Your task to perform on an android device: turn on priority inbox in the gmail app Image 0: 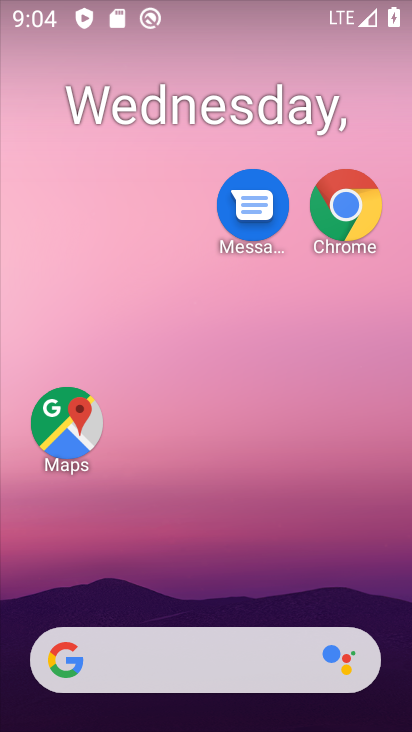
Step 0: drag from (196, 537) to (231, 171)
Your task to perform on an android device: turn on priority inbox in the gmail app Image 1: 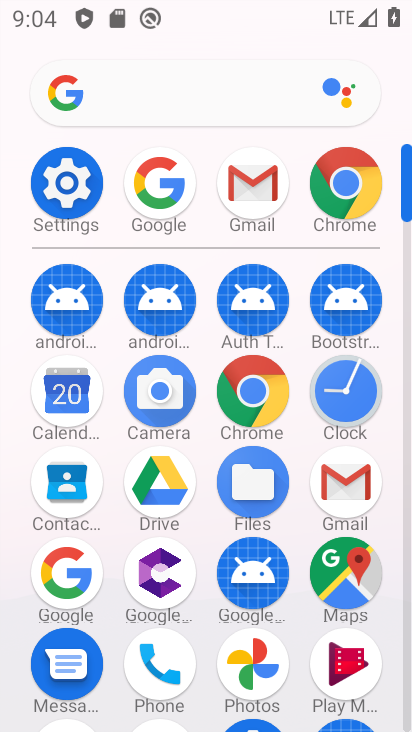
Step 1: click (333, 480)
Your task to perform on an android device: turn on priority inbox in the gmail app Image 2: 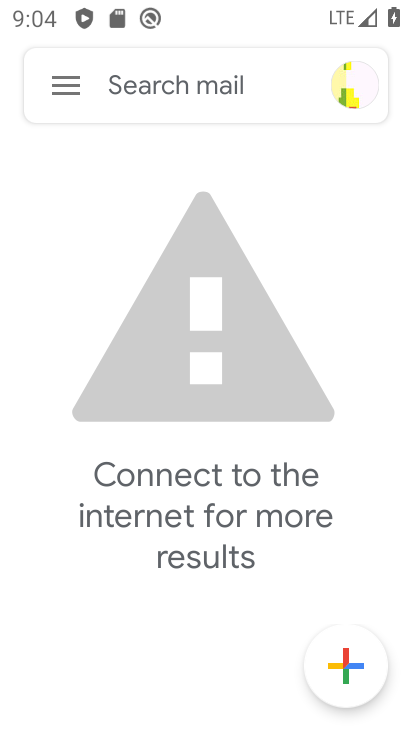
Step 2: drag from (235, 593) to (251, 261)
Your task to perform on an android device: turn on priority inbox in the gmail app Image 3: 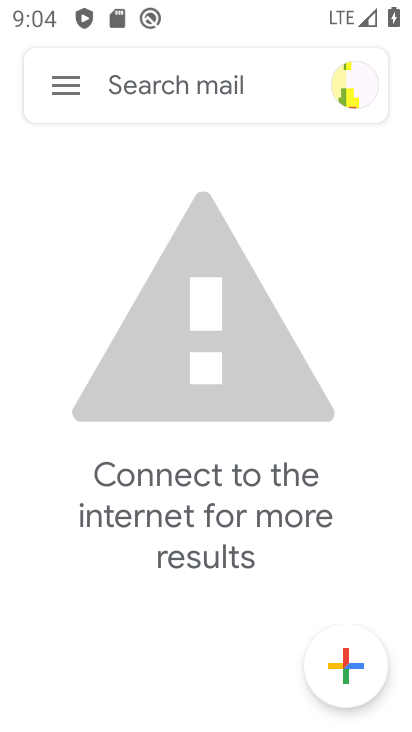
Step 3: click (52, 84)
Your task to perform on an android device: turn on priority inbox in the gmail app Image 4: 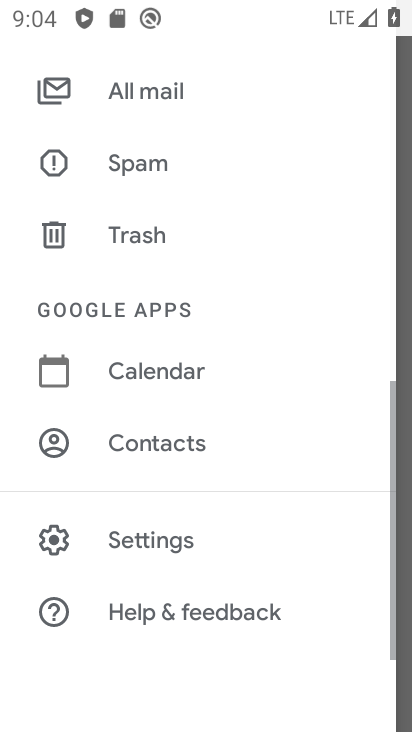
Step 4: drag from (186, 546) to (245, 170)
Your task to perform on an android device: turn on priority inbox in the gmail app Image 5: 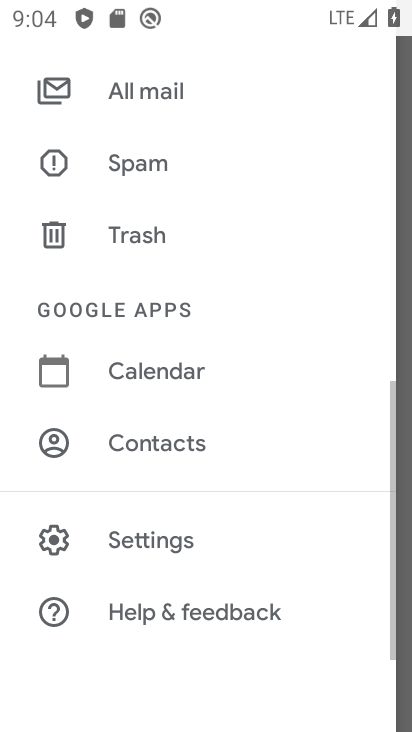
Step 5: click (247, 534)
Your task to perform on an android device: turn on priority inbox in the gmail app Image 6: 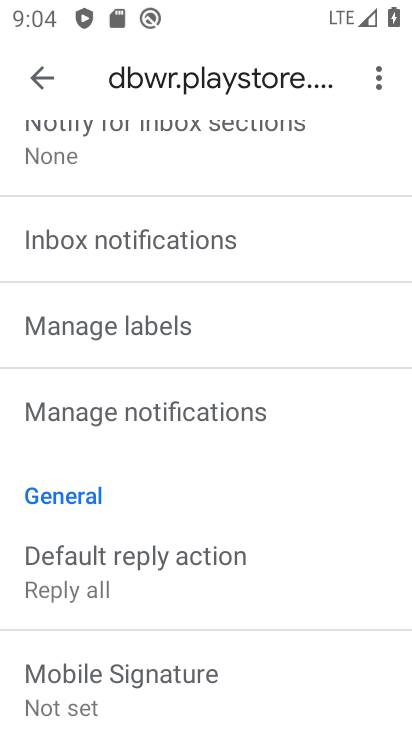
Step 6: drag from (216, 654) to (318, 362)
Your task to perform on an android device: turn on priority inbox in the gmail app Image 7: 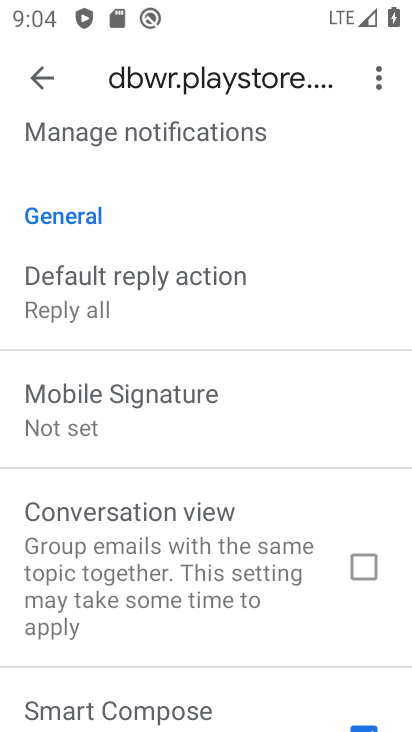
Step 7: drag from (237, 607) to (264, 364)
Your task to perform on an android device: turn on priority inbox in the gmail app Image 8: 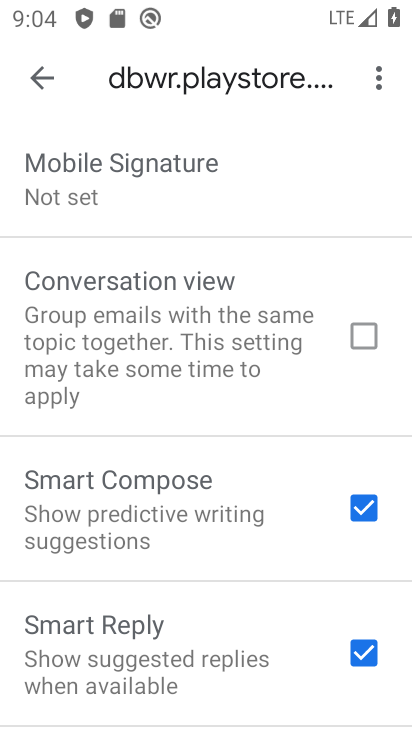
Step 8: drag from (236, 605) to (276, 398)
Your task to perform on an android device: turn on priority inbox in the gmail app Image 9: 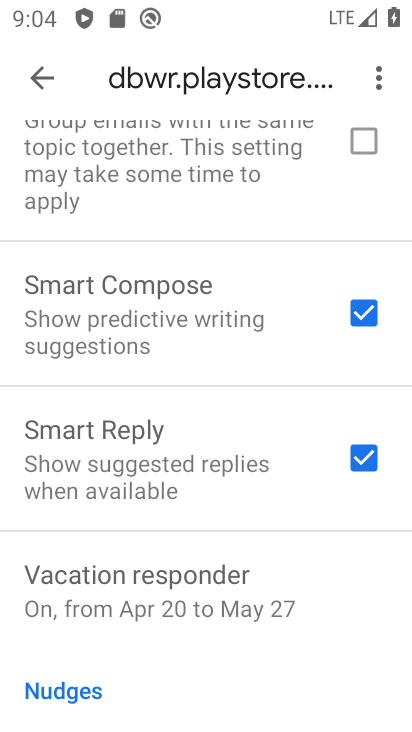
Step 9: drag from (125, 221) to (264, 731)
Your task to perform on an android device: turn on priority inbox in the gmail app Image 10: 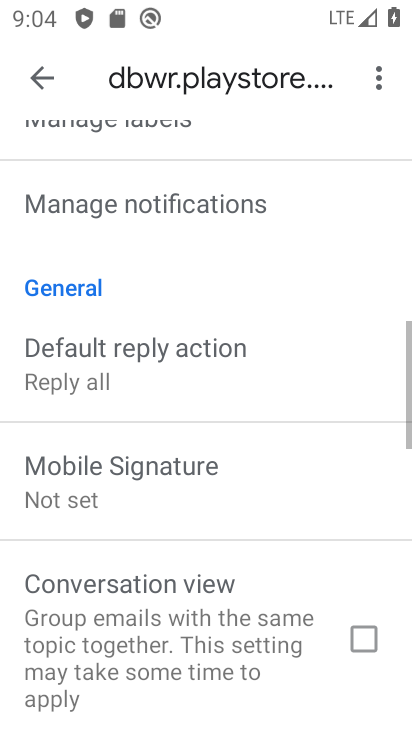
Step 10: drag from (101, 285) to (213, 719)
Your task to perform on an android device: turn on priority inbox in the gmail app Image 11: 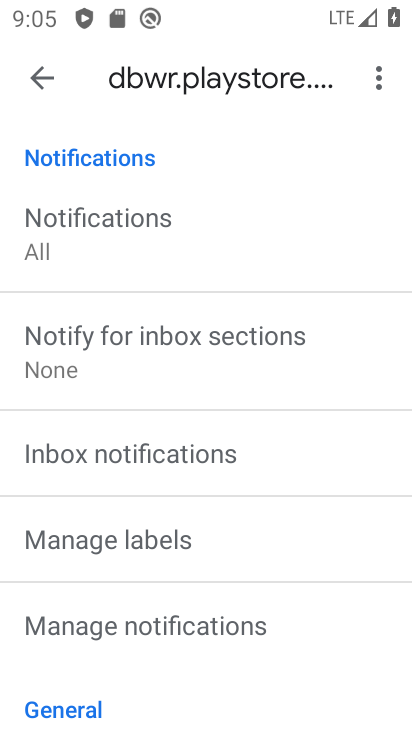
Step 11: drag from (120, 293) to (276, 731)
Your task to perform on an android device: turn on priority inbox in the gmail app Image 12: 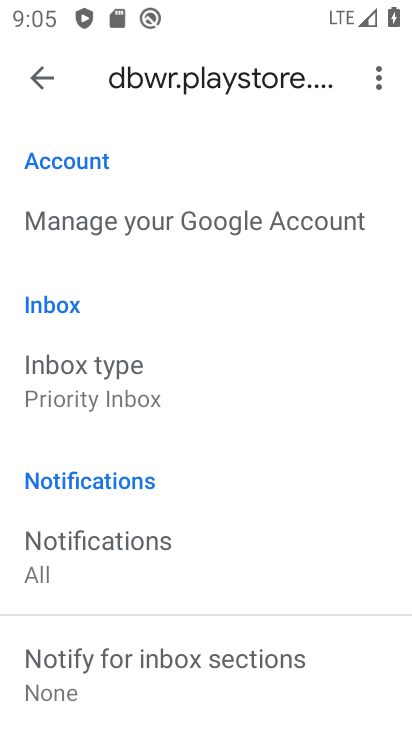
Step 12: click (99, 386)
Your task to perform on an android device: turn on priority inbox in the gmail app Image 13: 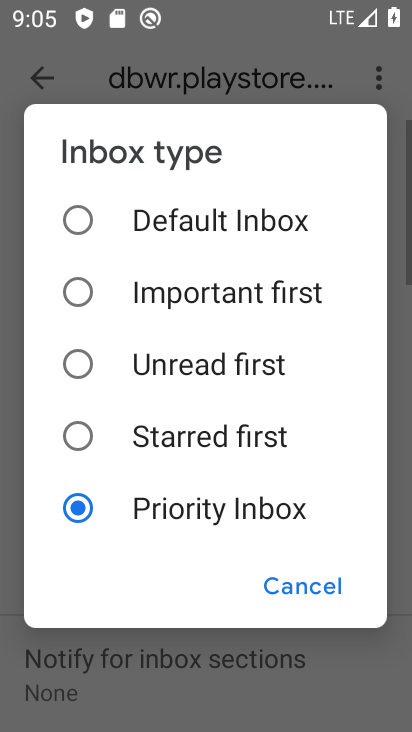
Step 13: click (186, 520)
Your task to perform on an android device: turn on priority inbox in the gmail app Image 14: 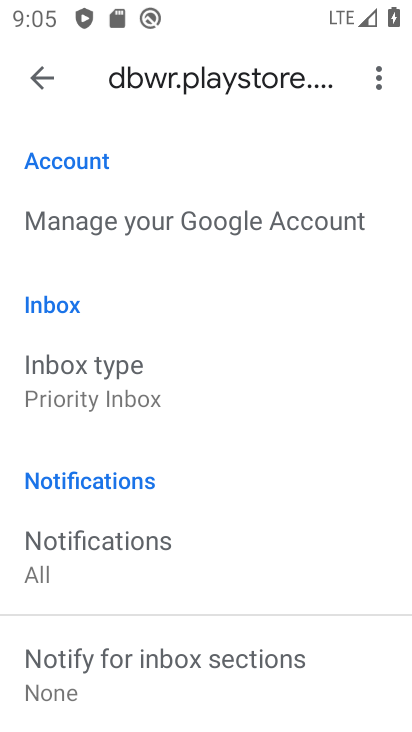
Step 14: task complete